Your task to perform on an android device: Search for usb-a on walmart.com, select the first entry, add it to the cart, then select checkout. Image 0: 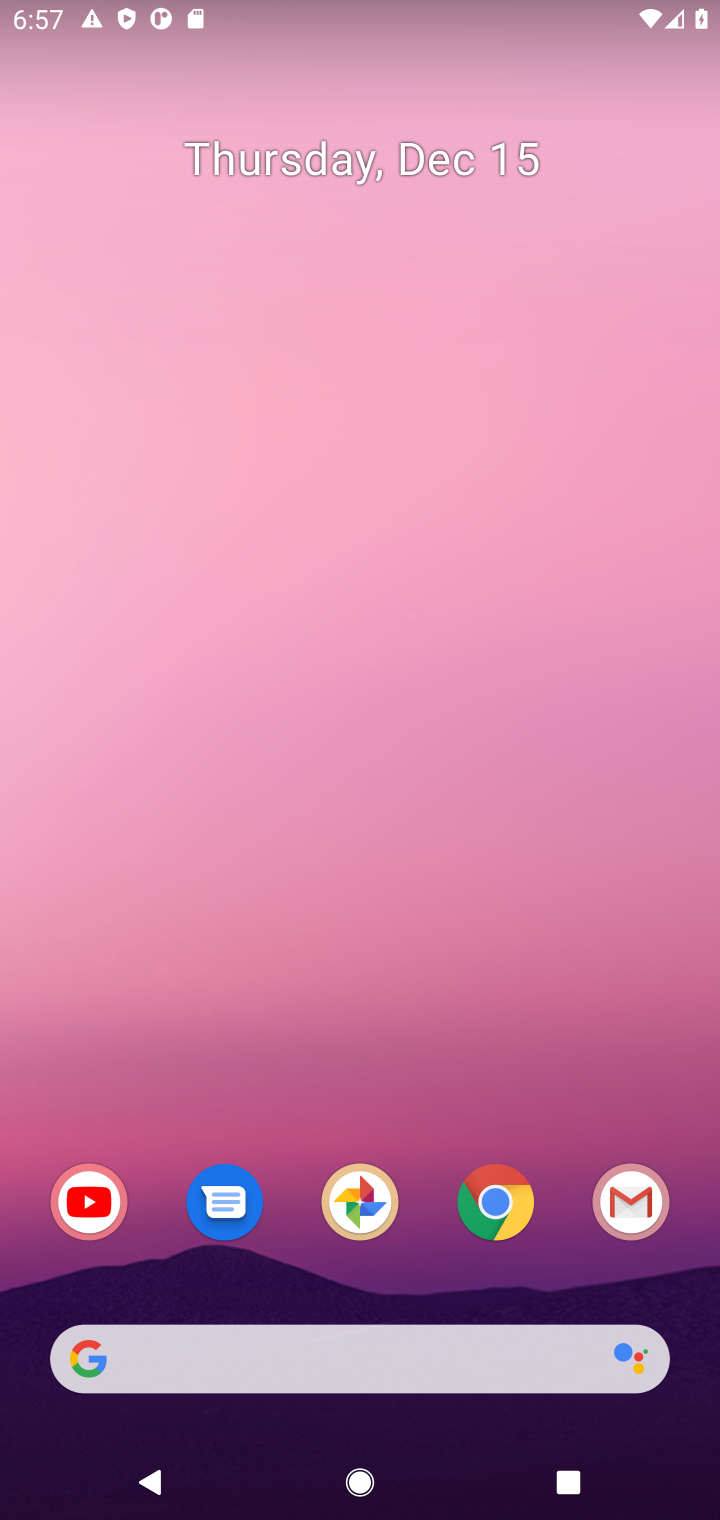
Step 0: click (498, 1216)
Your task to perform on an android device: Search for usb-a on walmart.com, select the first entry, add it to the cart, then select checkout. Image 1: 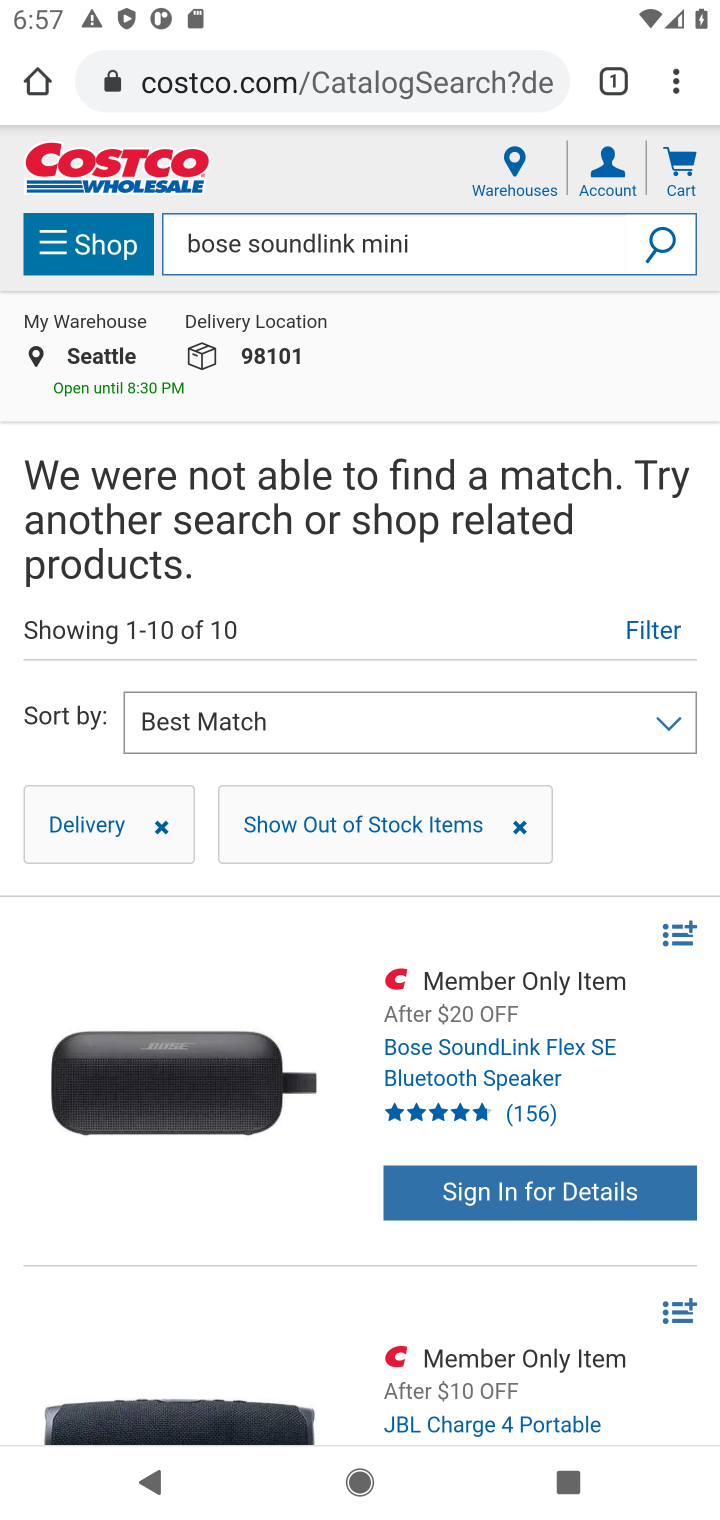
Step 1: click (323, 90)
Your task to perform on an android device: Search for usb-a on walmart.com, select the first entry, add it to the cart, then select checkout. Image 2: 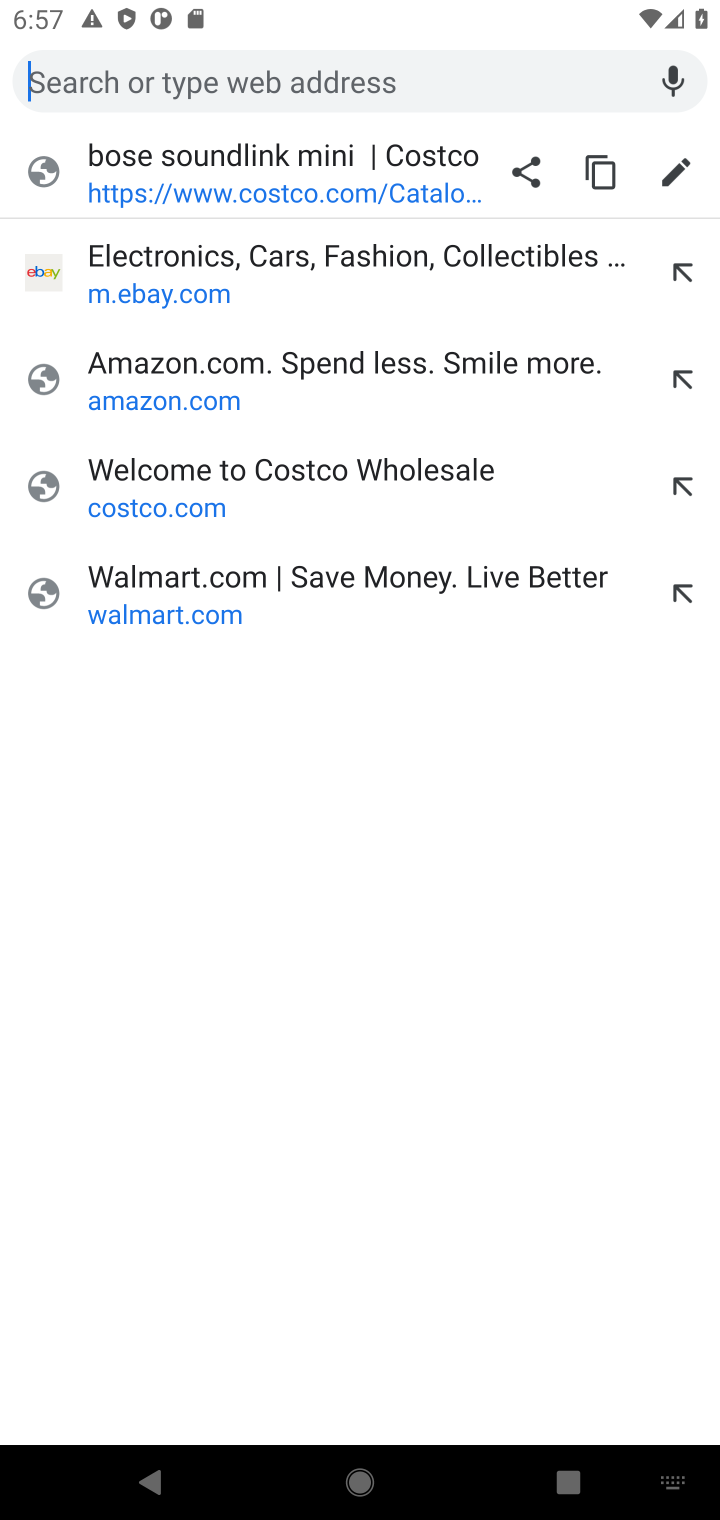
Step 2: click (133, 604)
Your task to perform on an android device: Search for usb-a on walmart.com, select the first entry, add it to the cart, then select checkout. Image 3: 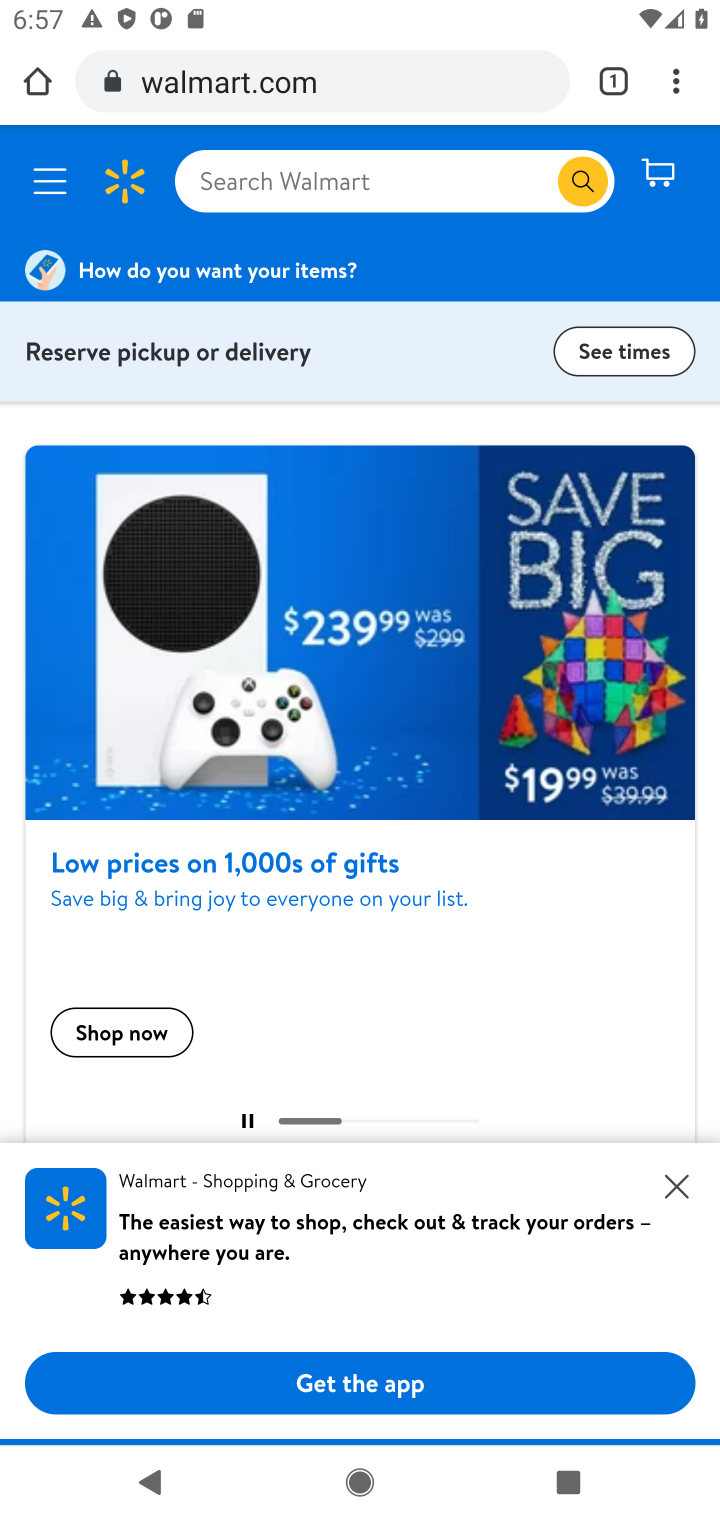
Step 3: click (278, 210)
Your task to perform on an android device: Search for usb-a on walmart.com, select the first entry, add it to the cart, then select checkout. Image 4: 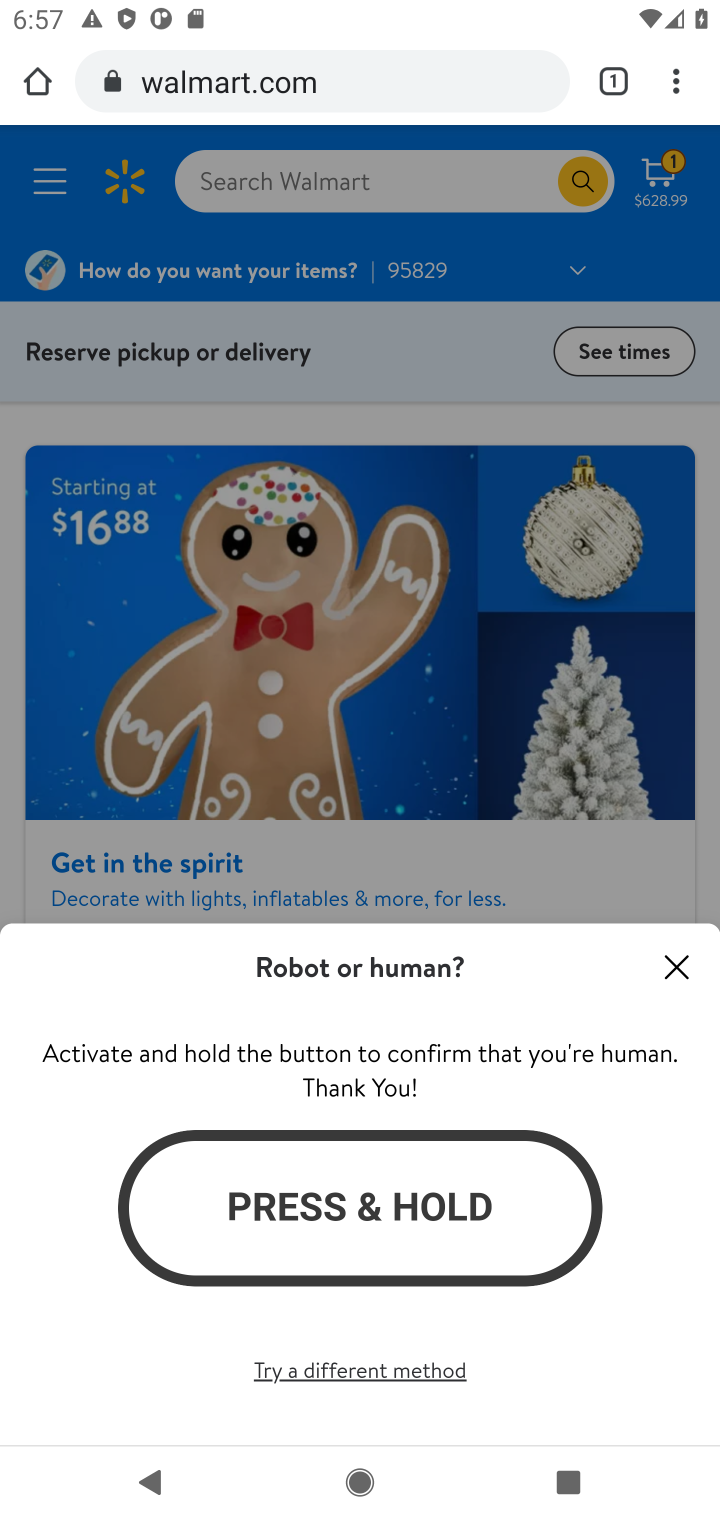
Step 4: click (387, 1380)
Your task to perform on an android device: Search for usb-a on walmart.com, select the first entry, add it to the cart, then select checkout. Image 5: 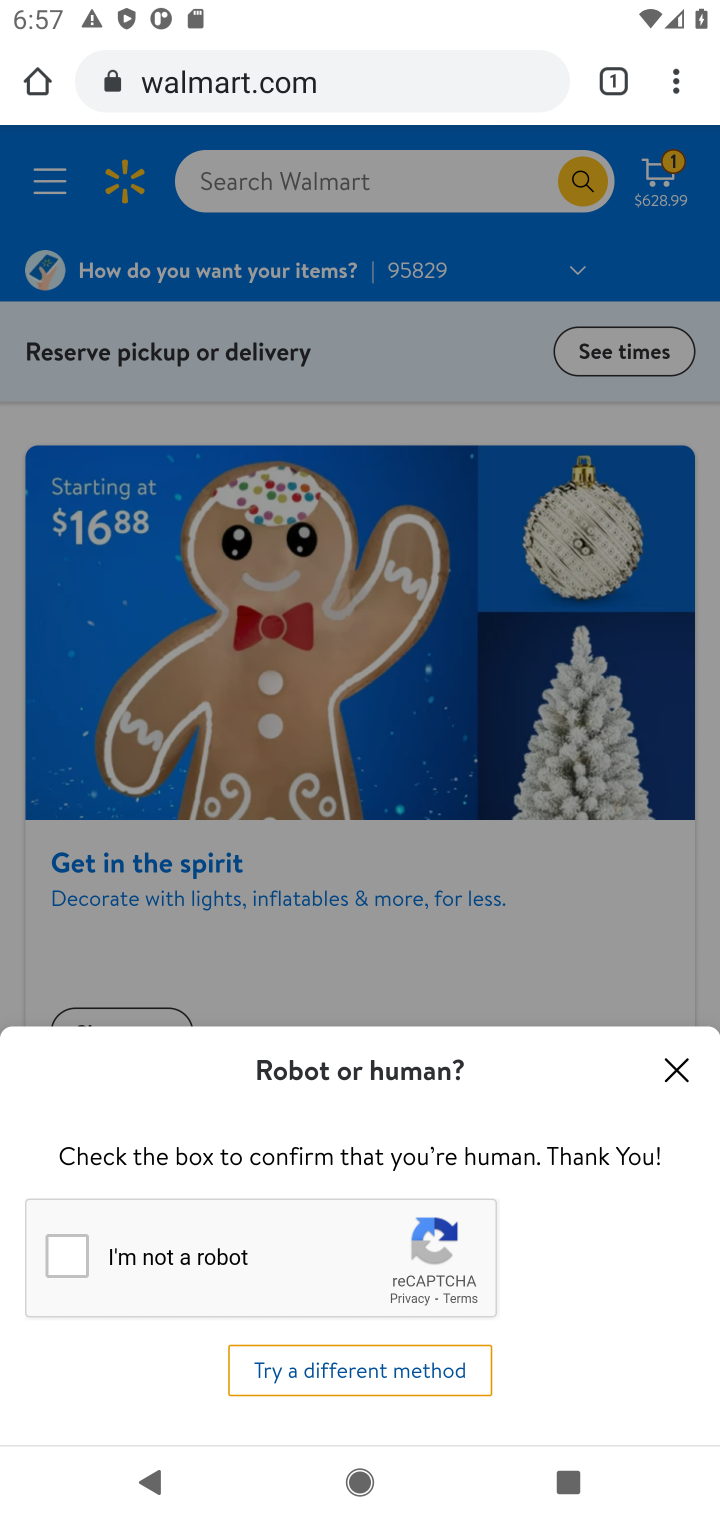
Step 5: click (54, 1249)
Your task to perform on an android device: Search for usb-a on walmart.com, select the first entry, add it to the cart, then select checkout. Image 6: 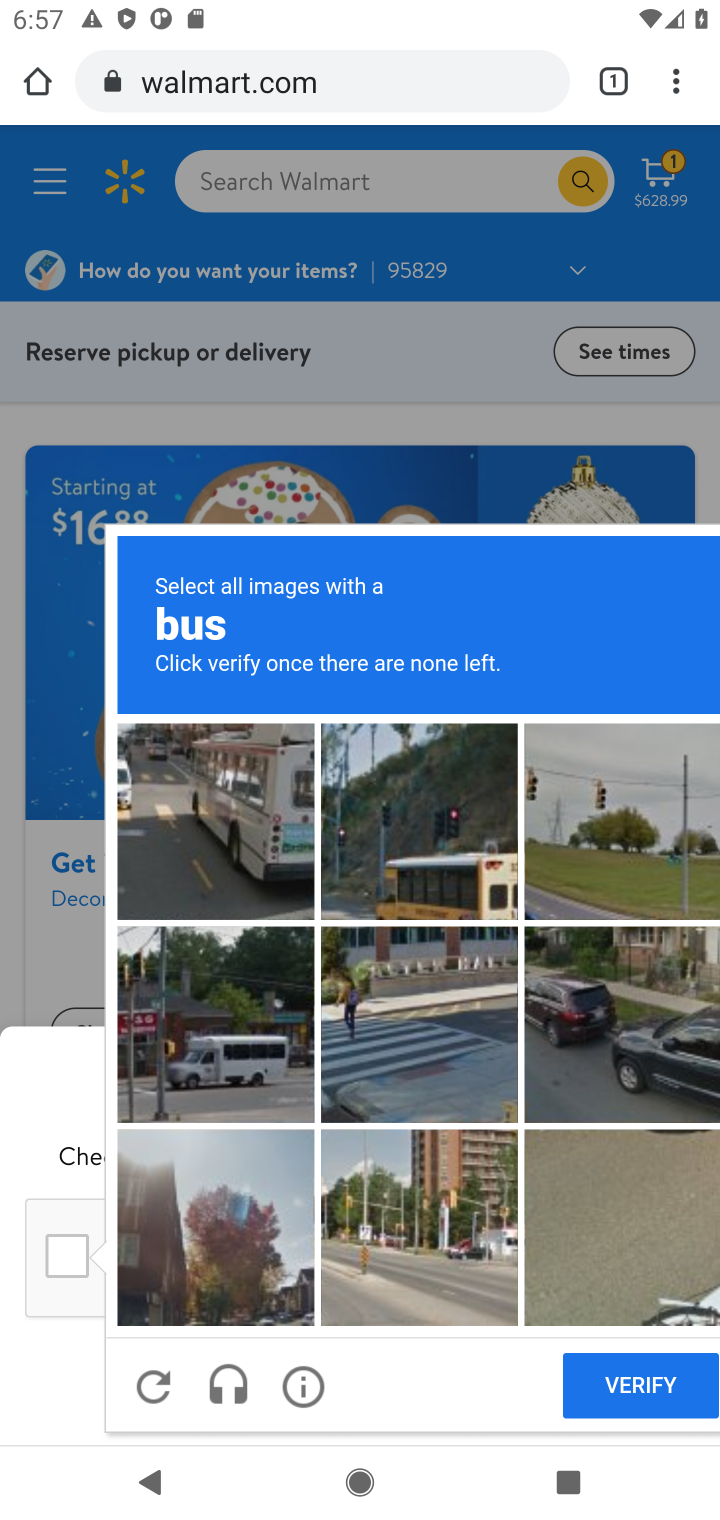
Step 6: drag from (208, 839) to (368, 876)
Your task to perform on an android device: Search for usb-a on walmart.com, select the first entry, add it to the cart, then select checkout. Image 7: 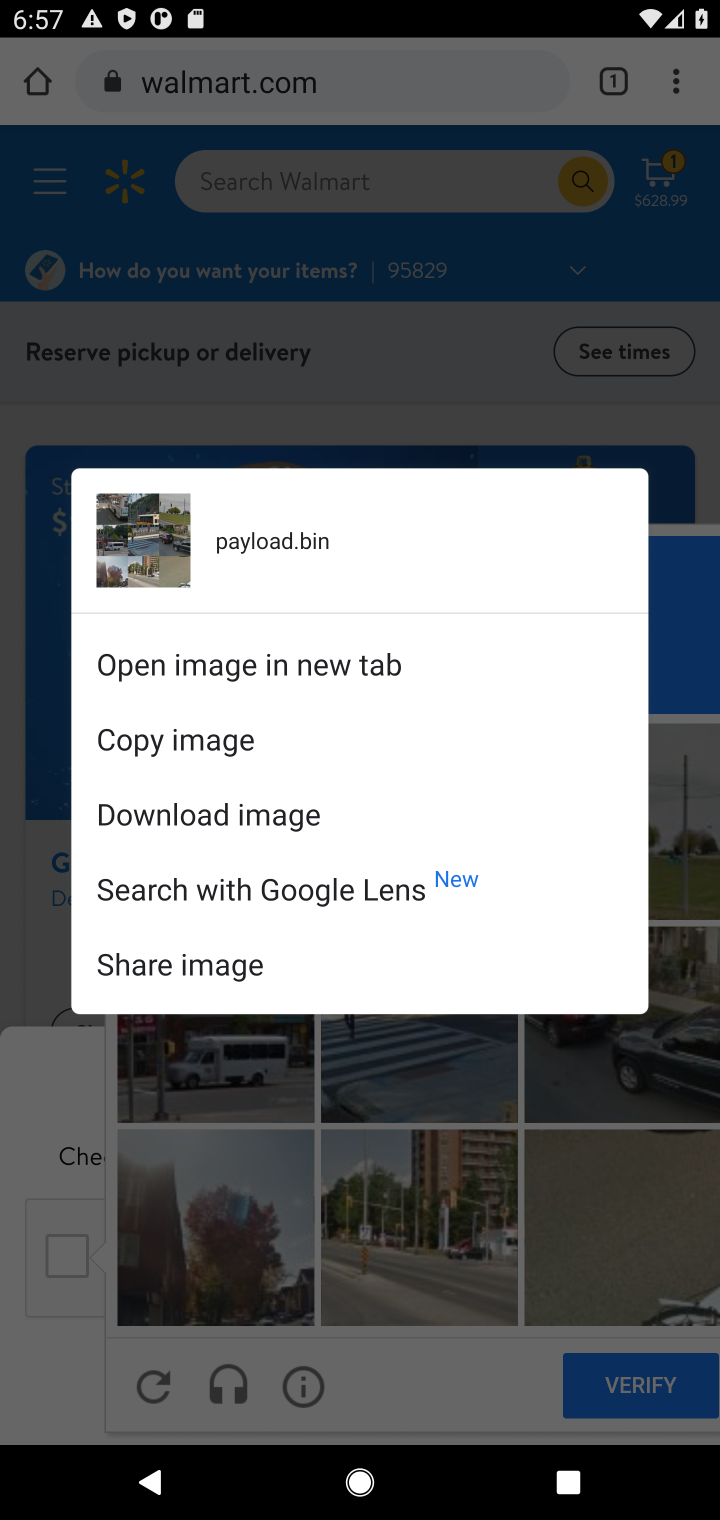
Step 7: click (255, 1061)
Your task to perform on an android device: Search for usb-a on walmart.com, select the first entry, add it to the cart, then select checkout. Image 8: 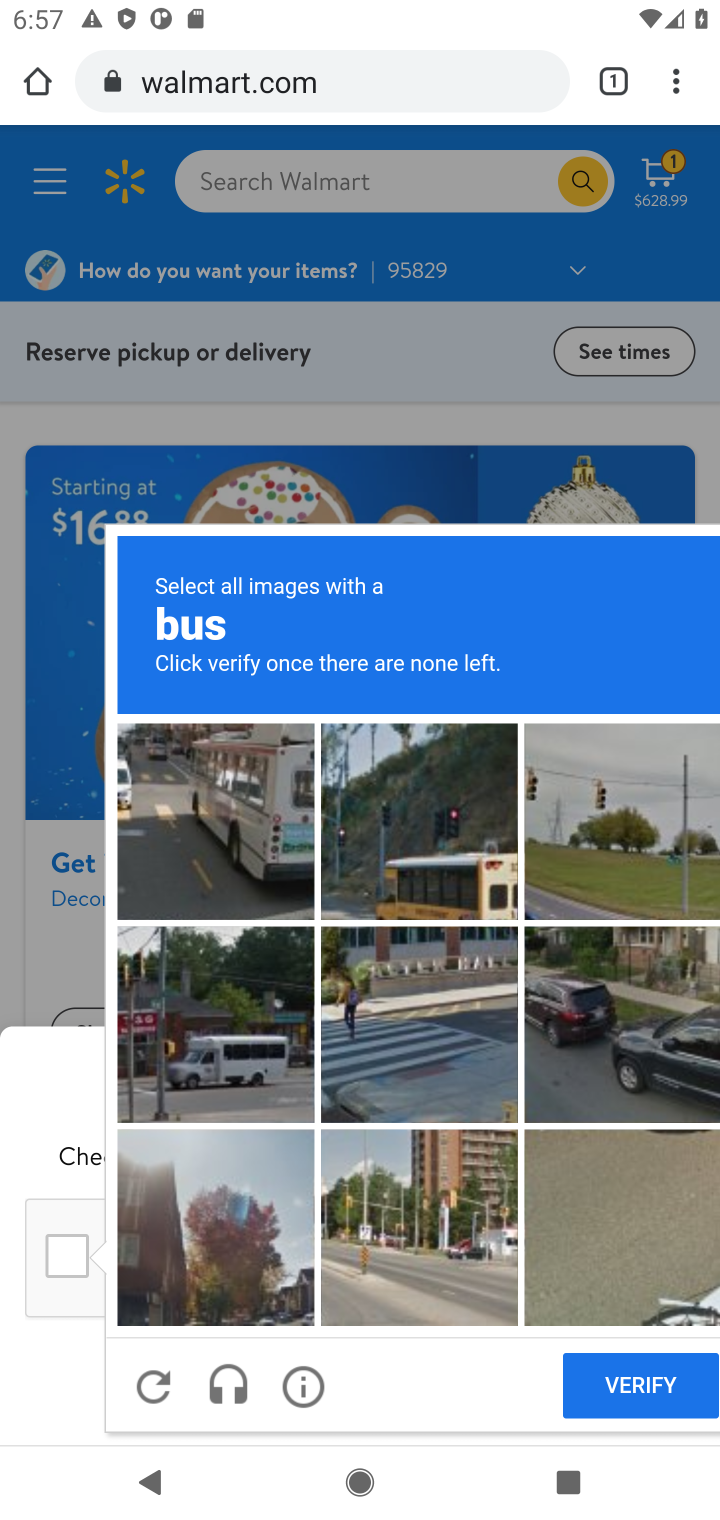
Step 8: click (234, 1057)
Your task to perform on an android device: Search for usb-a on walmart.com, select the first entry, add it to the cart, then select checkout. Image 9: 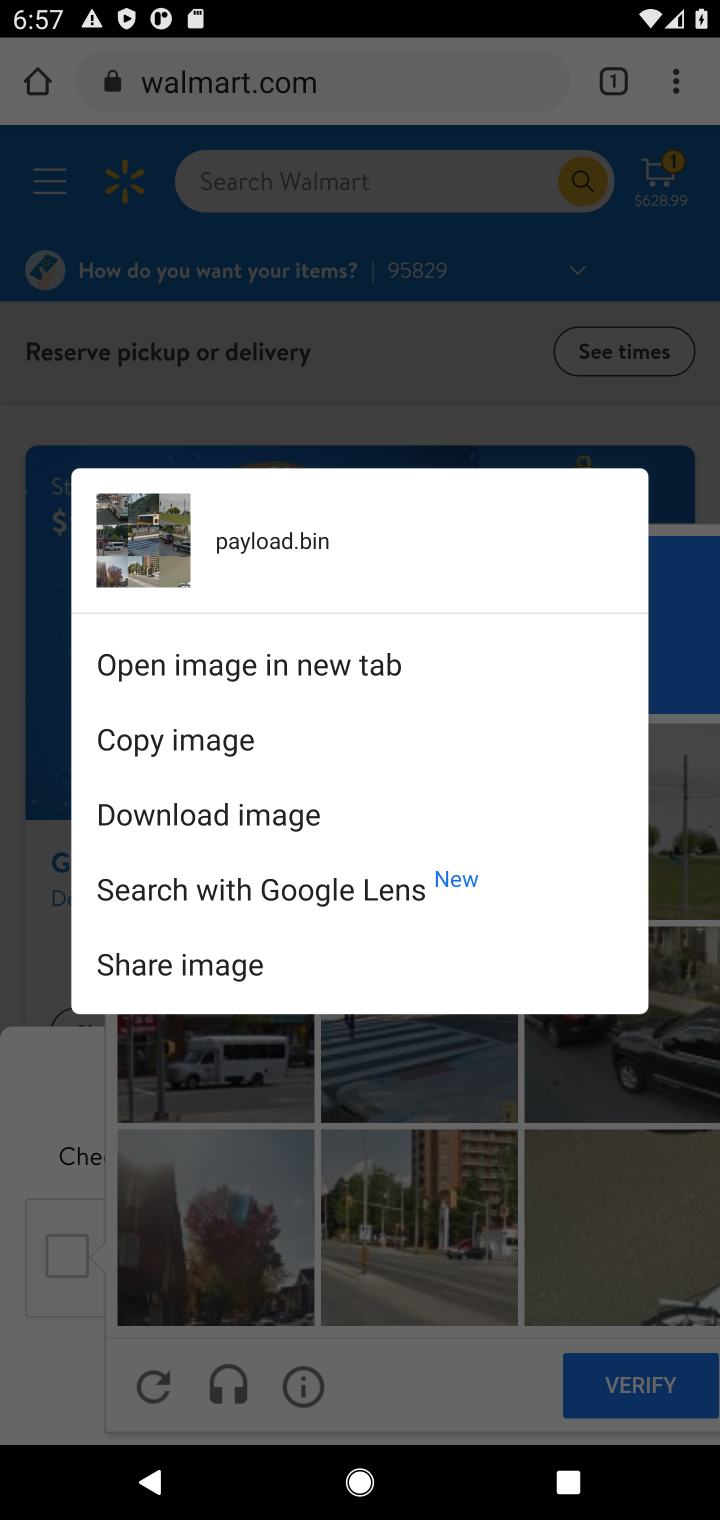
Step 9: click (240, 1068)
Your task to perform on an android device: Search for usb-a on walmart.com, select the first entry, add it to the cart, then select checkout. Image 10: 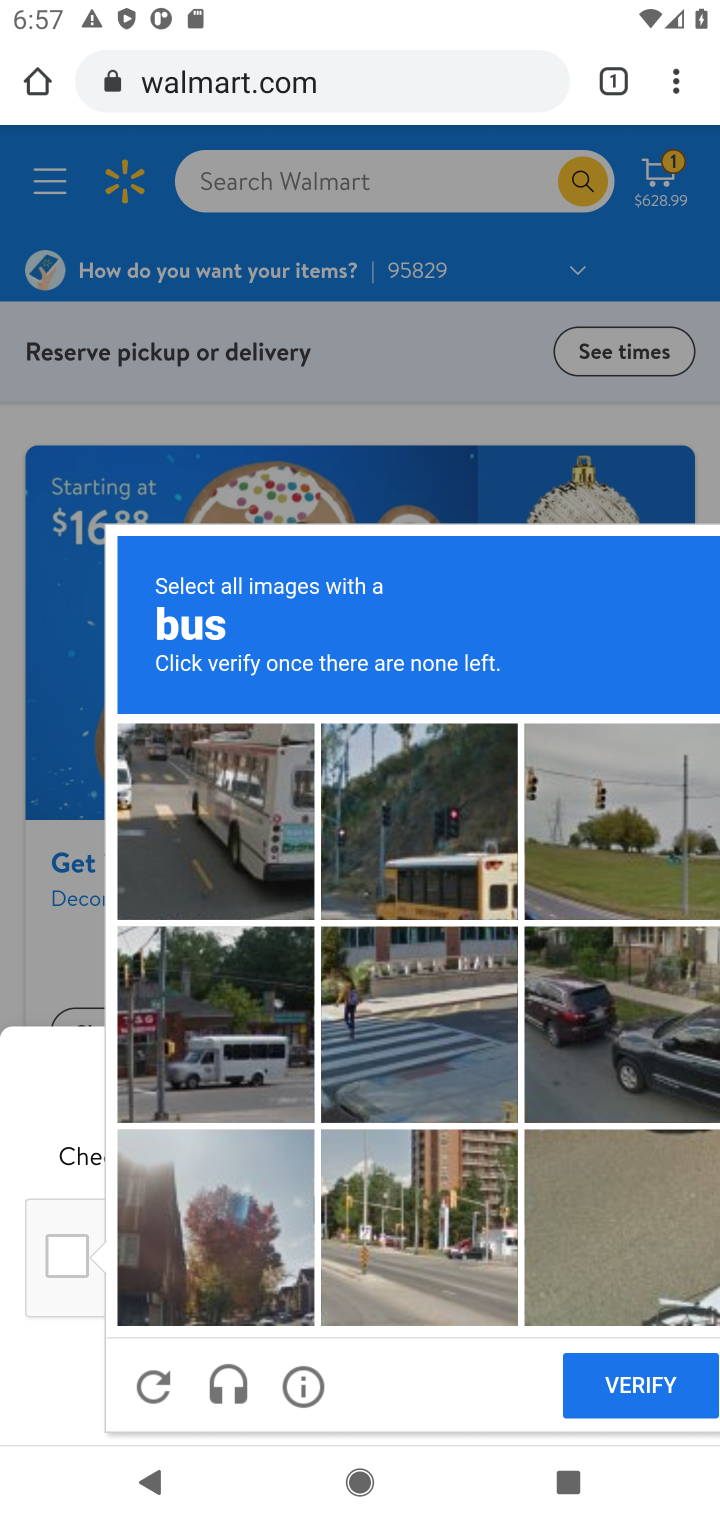
Step 10: click (263, 1057)
Your task to perform on an android device: Search for usb-a on walmart.com, select the first entry, add it to the cart, then select checkout. Image 11: 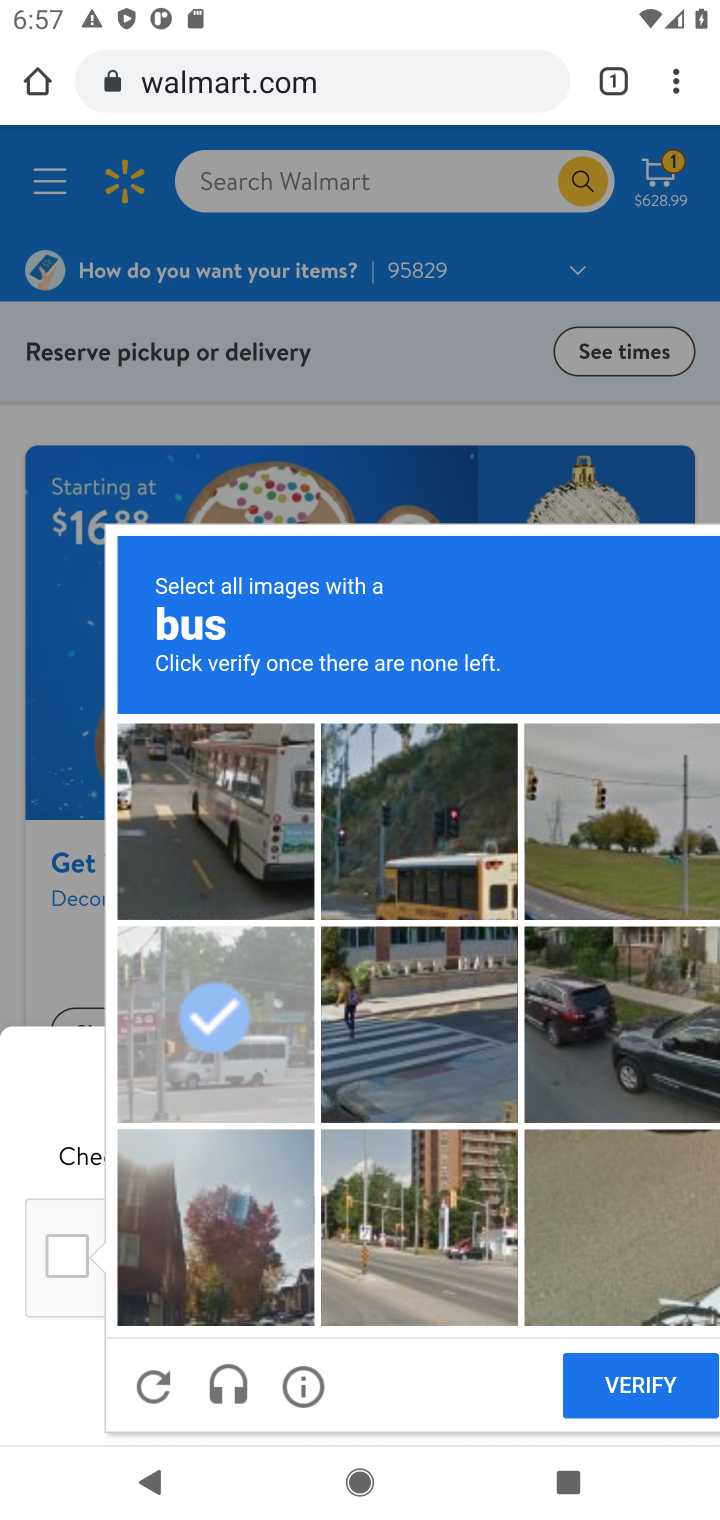
Step 11: click (235, 875)
Your task to perform on an android device: Search for usb-a on walmart.com, select the first entry, add it to the cart, then select checkout. Image 12: 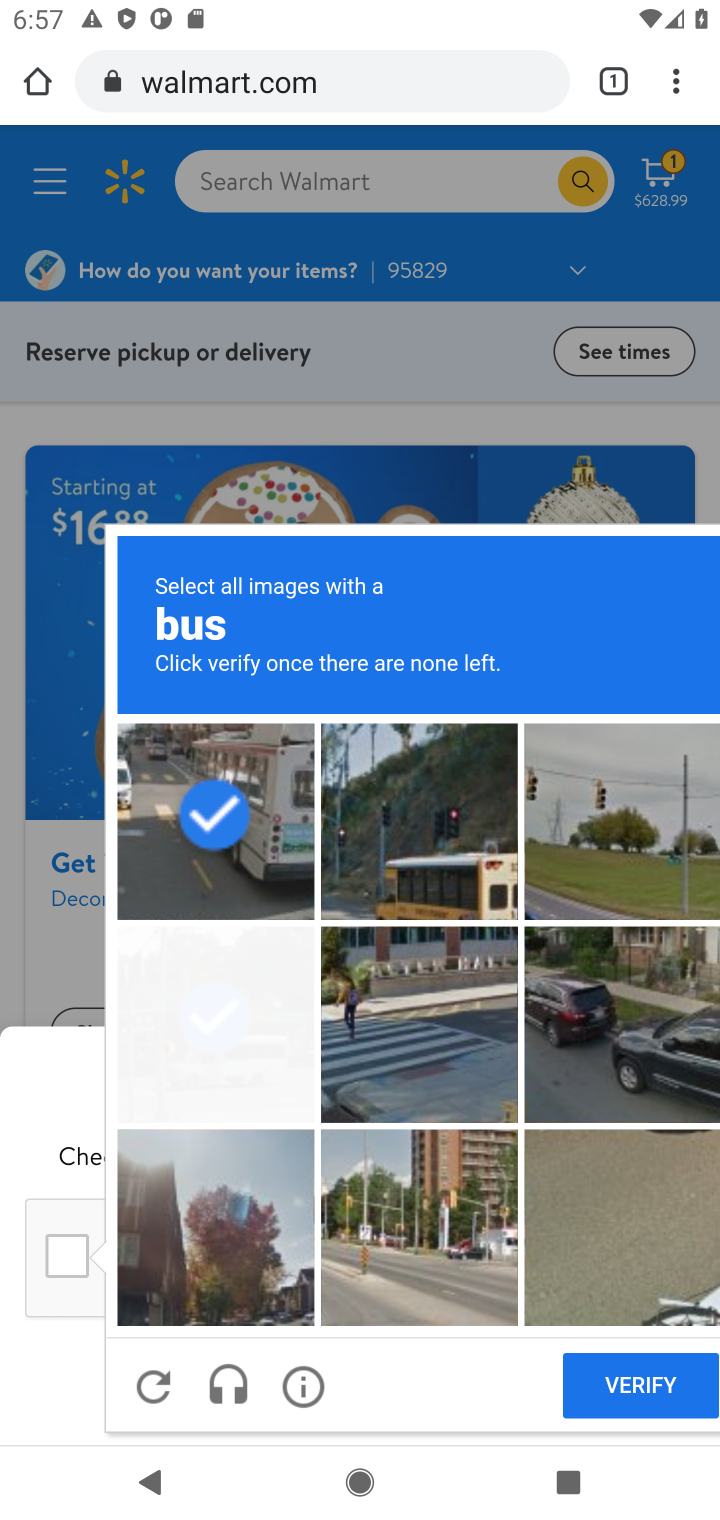
Step 12: click (410, 830)
Your task to perform on an android device: Search for usb-a on walmart.com, select the first entry, add it to the cart, then select checkout. Image 13: 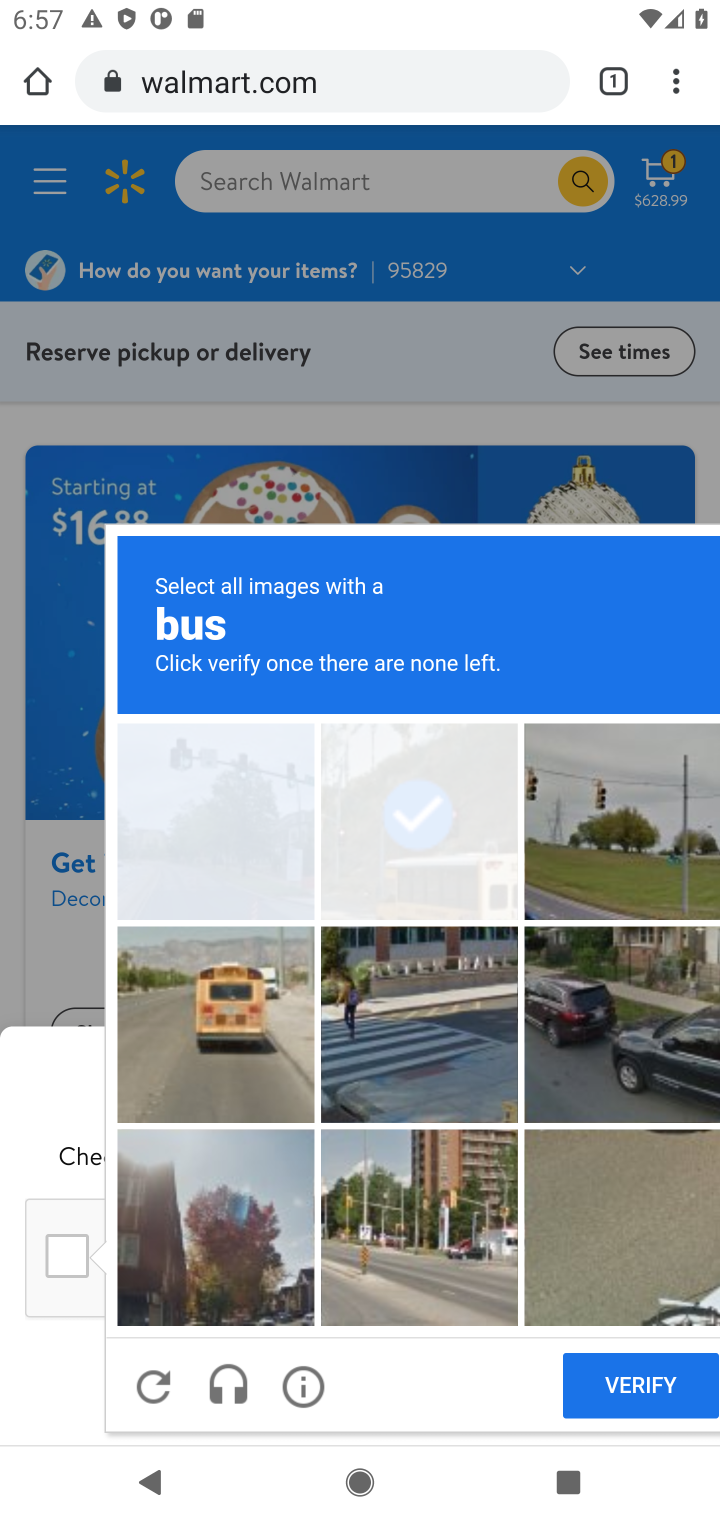
Step 13: click (256, 1011)
Your task to perform on an android device: Search for usb-a on walmart.com, select the first entry, add it to the cart, then select checkout. Image 14: 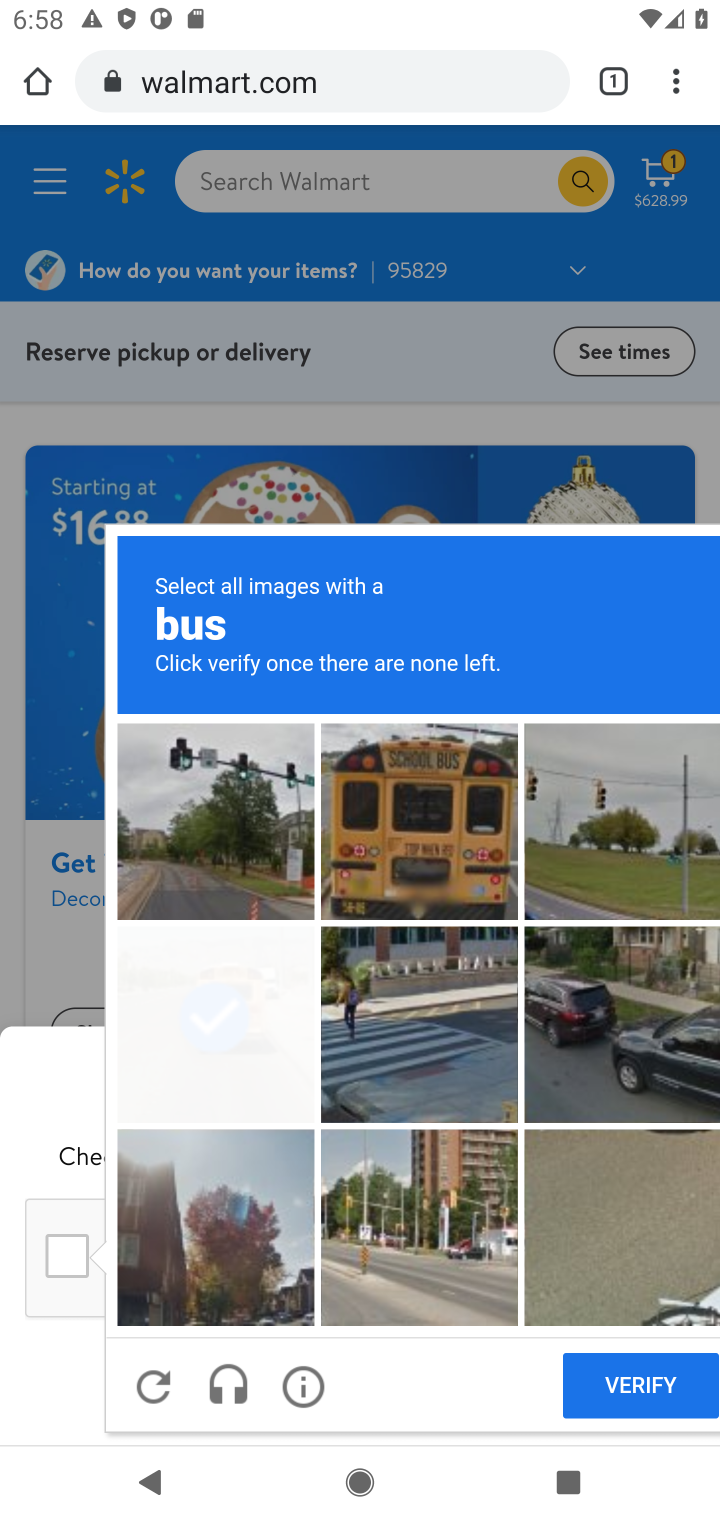
Step 14: click (354, 899)
Your task to perform on an android device: Search for usb-a on walmart.com, select the first entry, add it to the cart, then select checkout. Image 15: 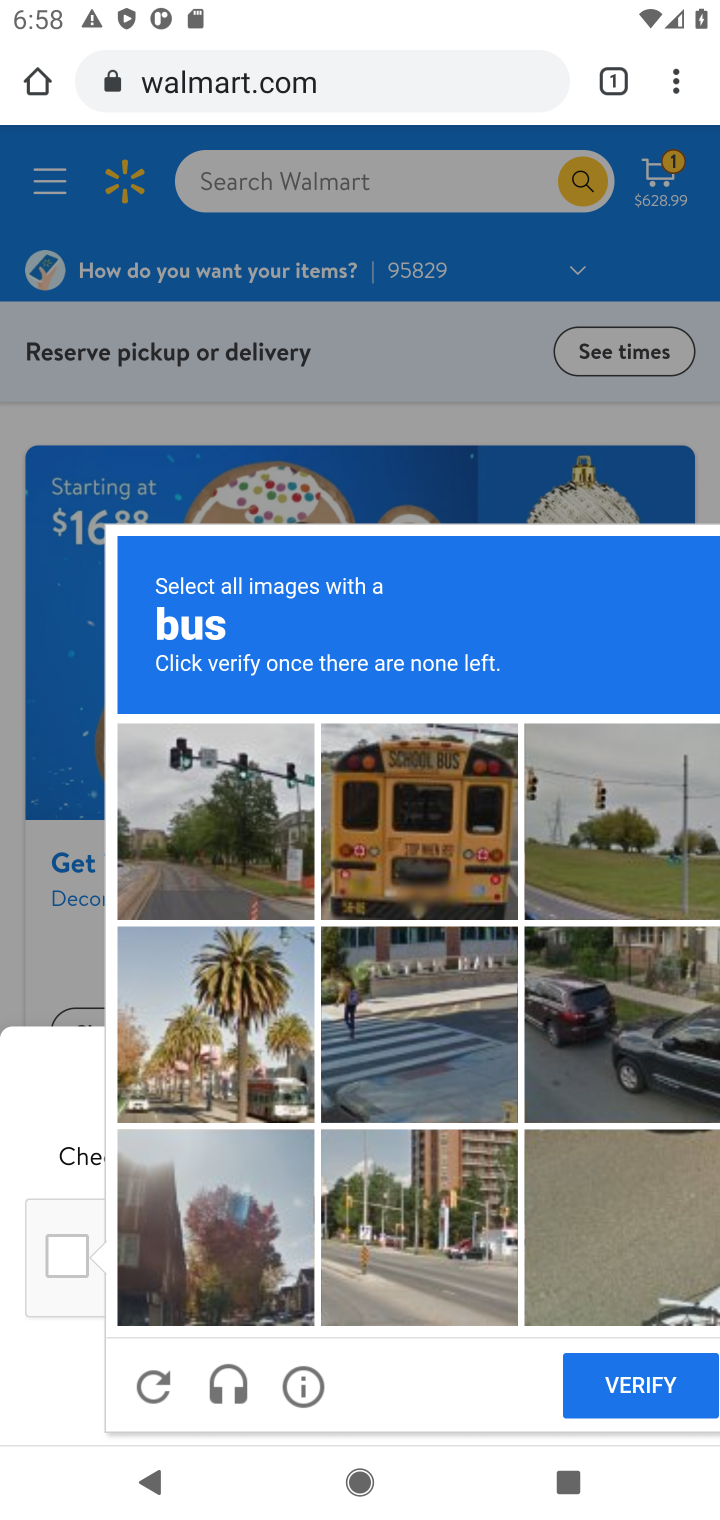
Step 15: click (384, 862)
Your task to perform on an android device: Search for usb-a on walmart.com, select the first entry, add it to the cart, then select checkout. Image 16: 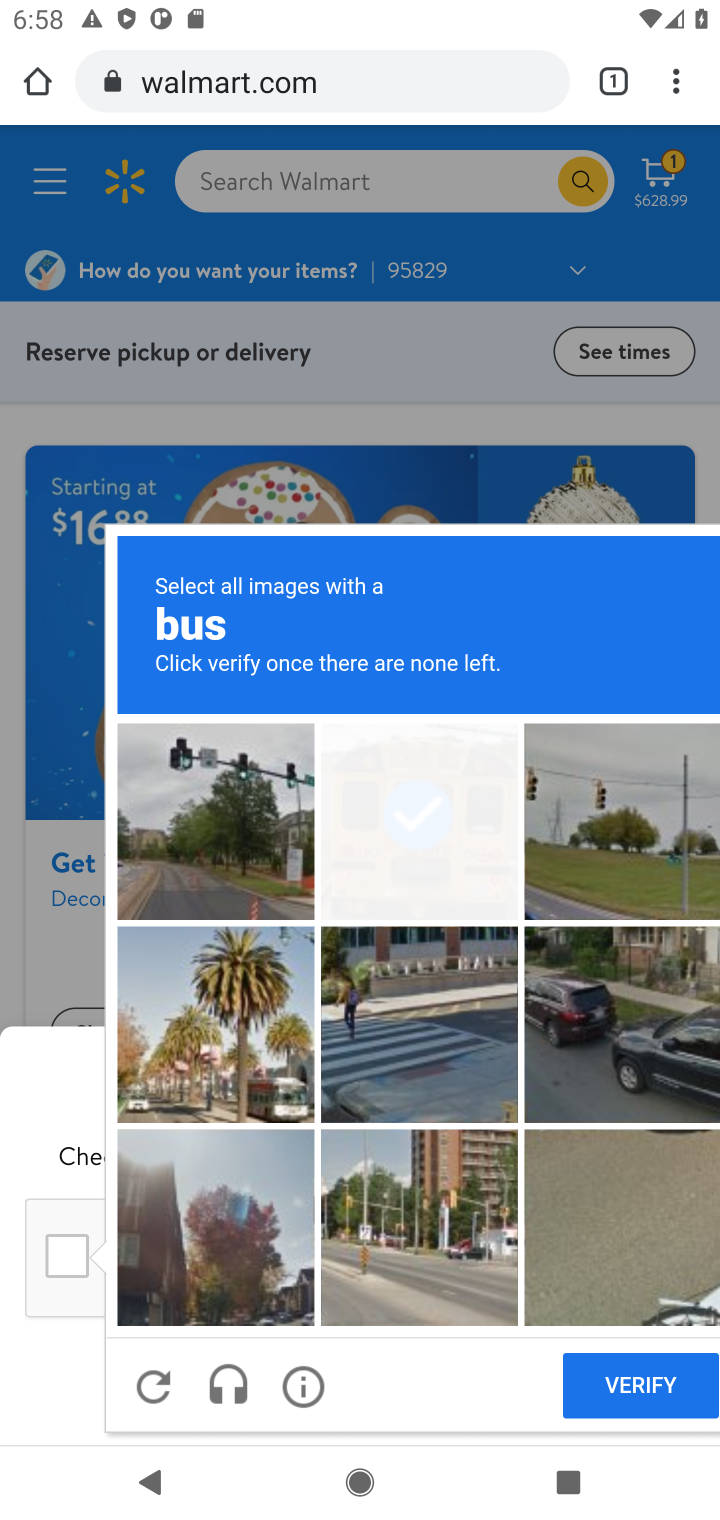
Step 16: click (232, 1035)
Your task to perform on an android device: Search for usb-a on walmart.com, select the first entry, add it to the cart, then select checkout. Image 17: 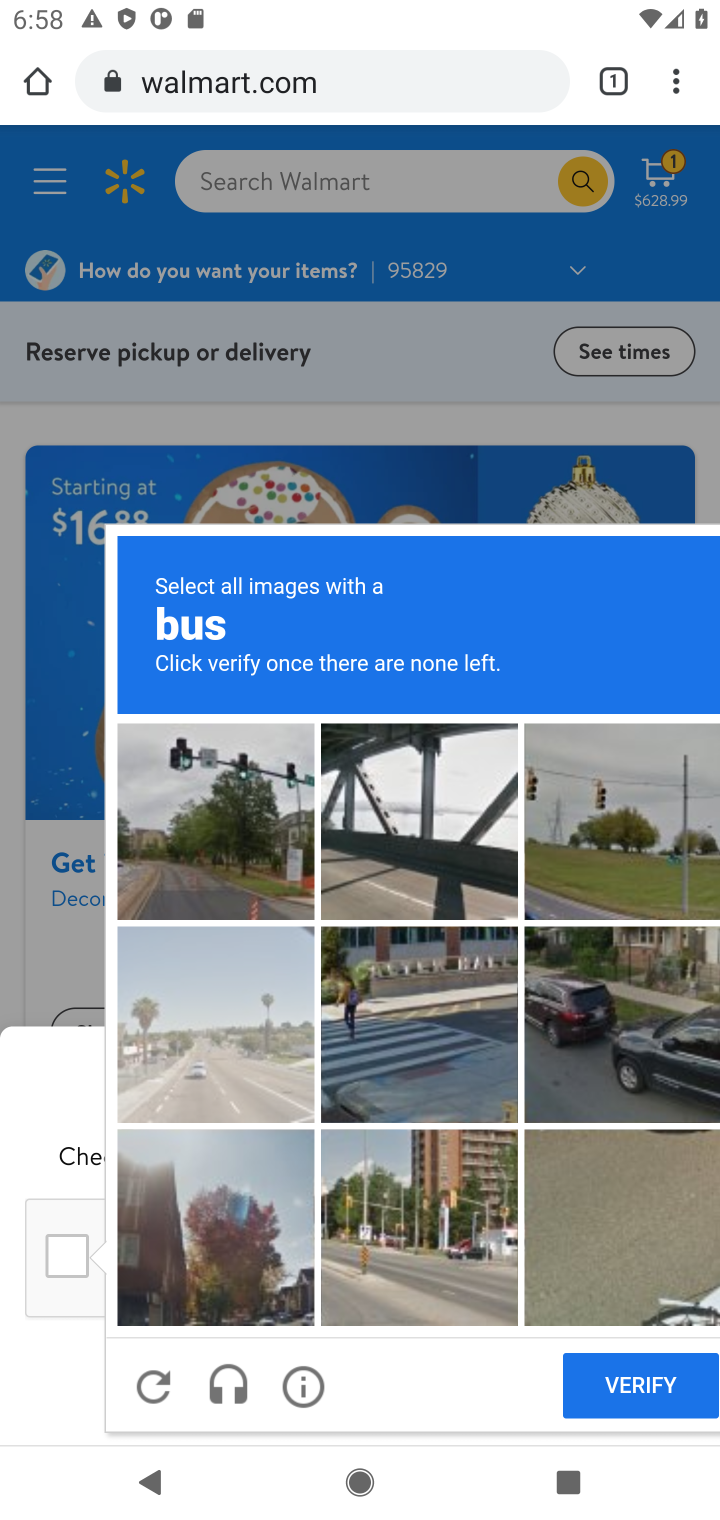
Step 17: click (404, 1268)
Your task to perform on an android device: Search for usb-a on walmart.com, select the first entry, add it to the cart, then select checkout. Image 18: 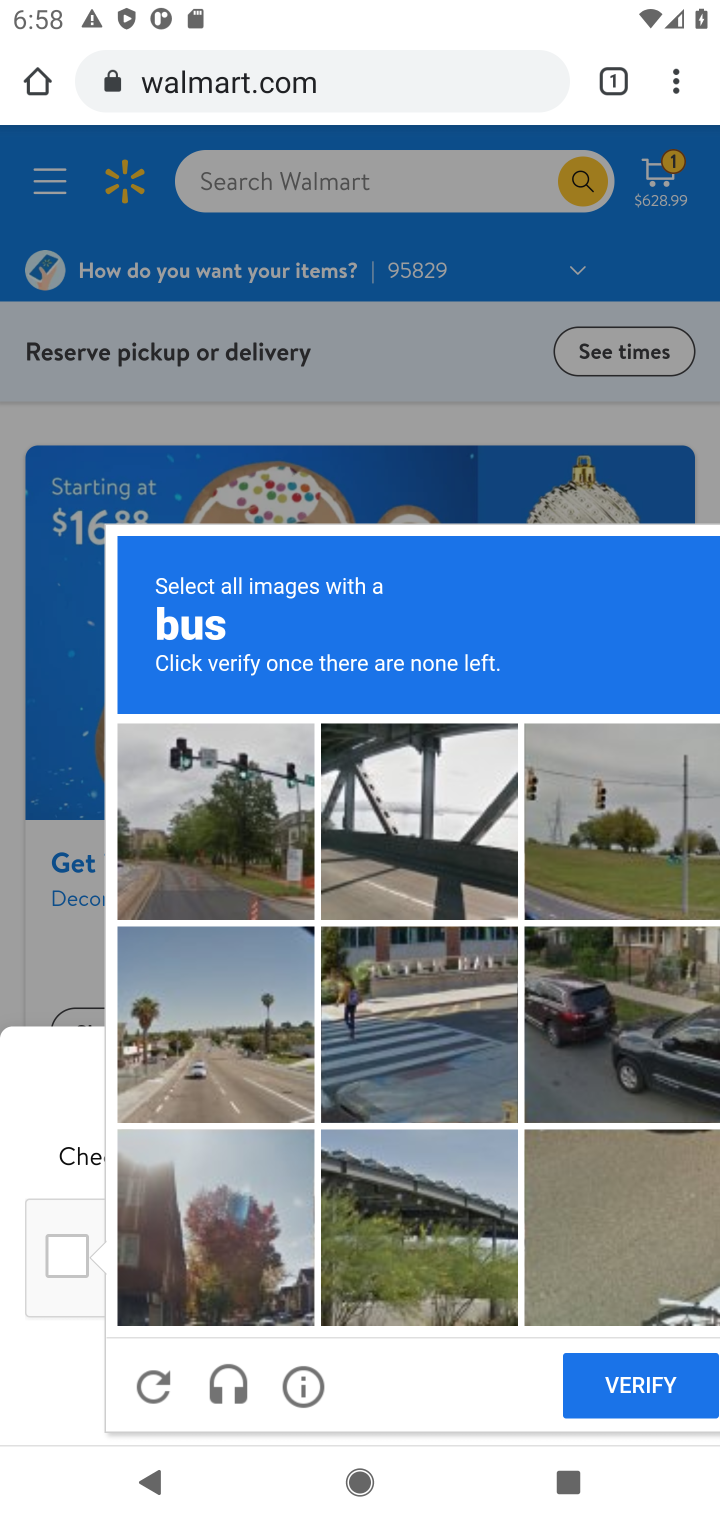
Step 18: click (624, 1390)
Your task to perform on an android device: Search for usb-a on walmart.com, select the first entry, add it to the cart, then select checkout. Image 19: 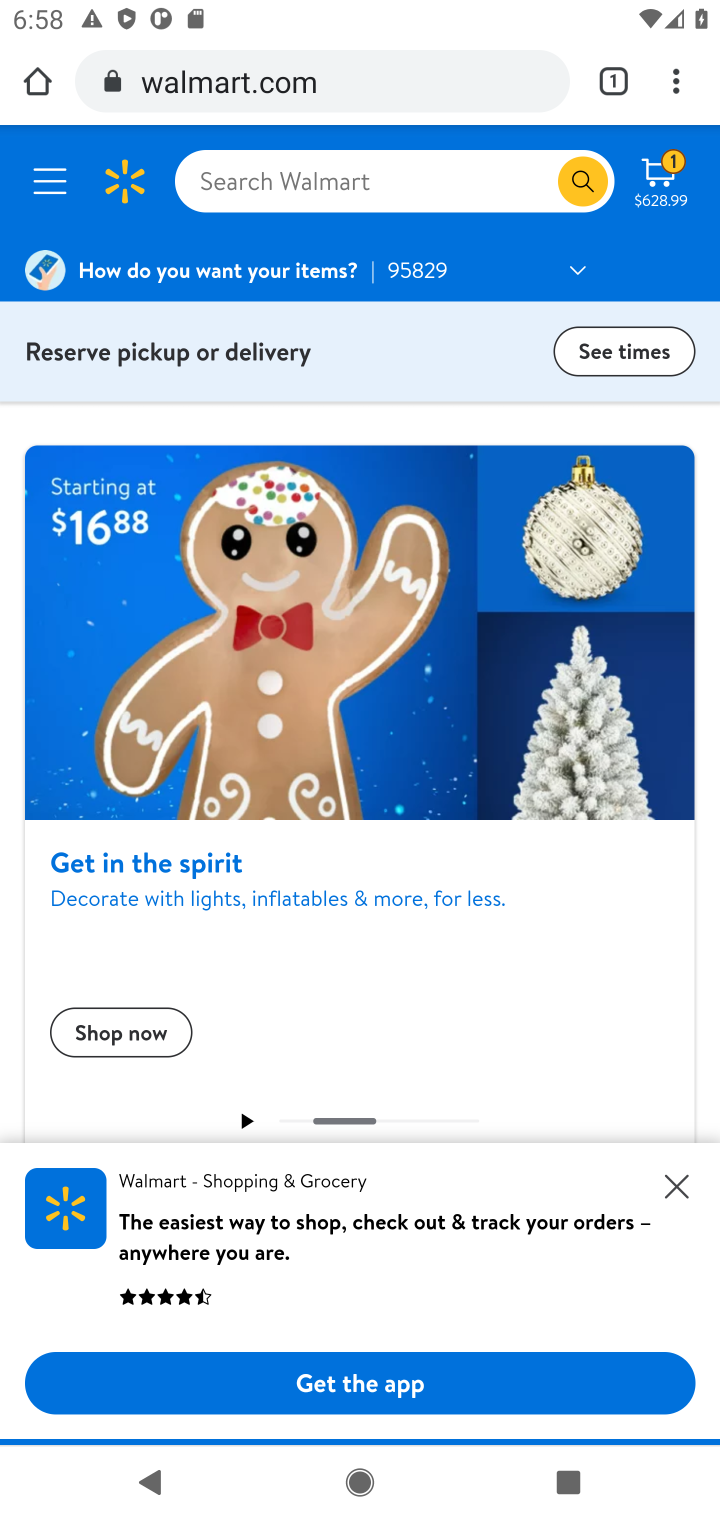
Step 19: click (269, 183)
Your task to perform on an android device: Search for usb-a on walmart.com, select the first entry, add it to the cart, then select checkout. Image 20: 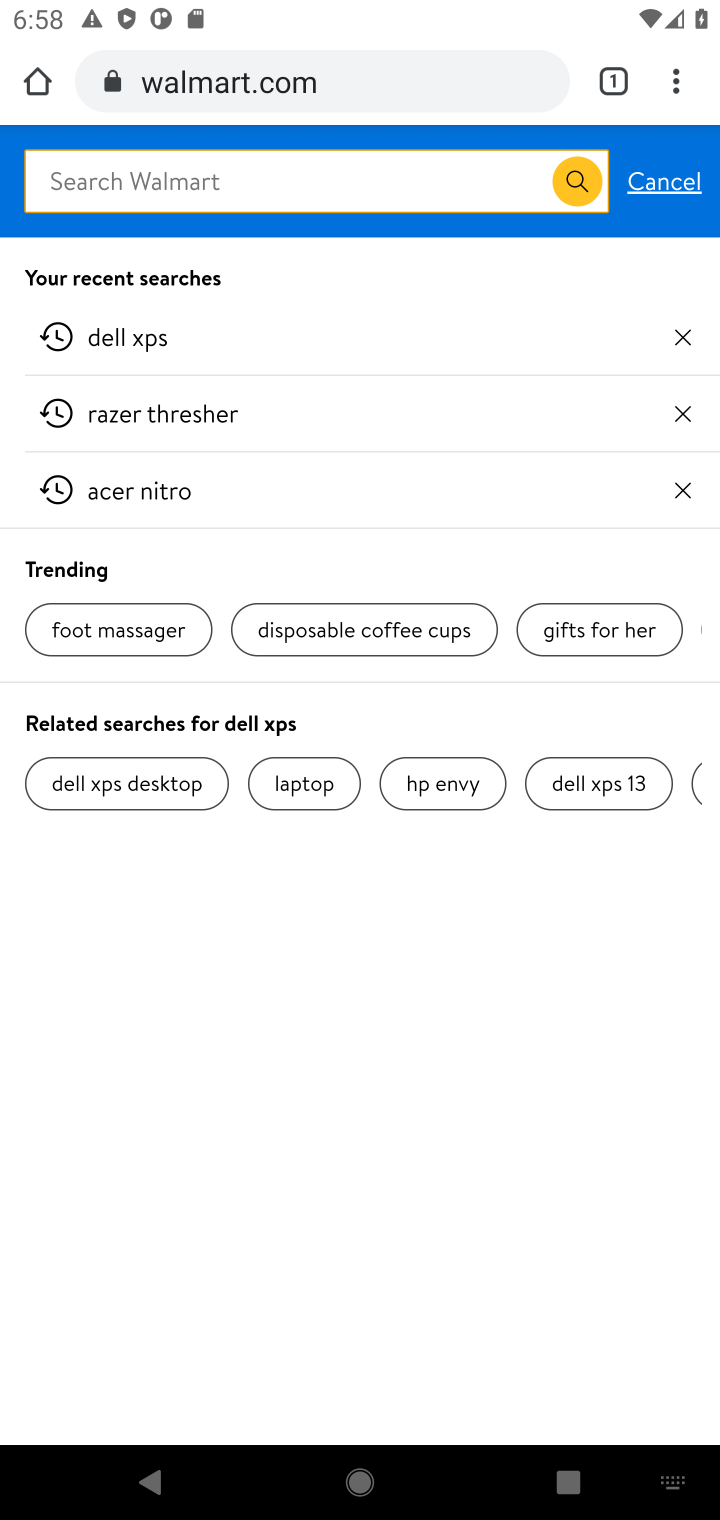
Step 20: type "usb-a"
Your task to perform on an android device: Search for usb-a on walmart.com, select the first entry, add it to the cart, then select checkout. Image 21: 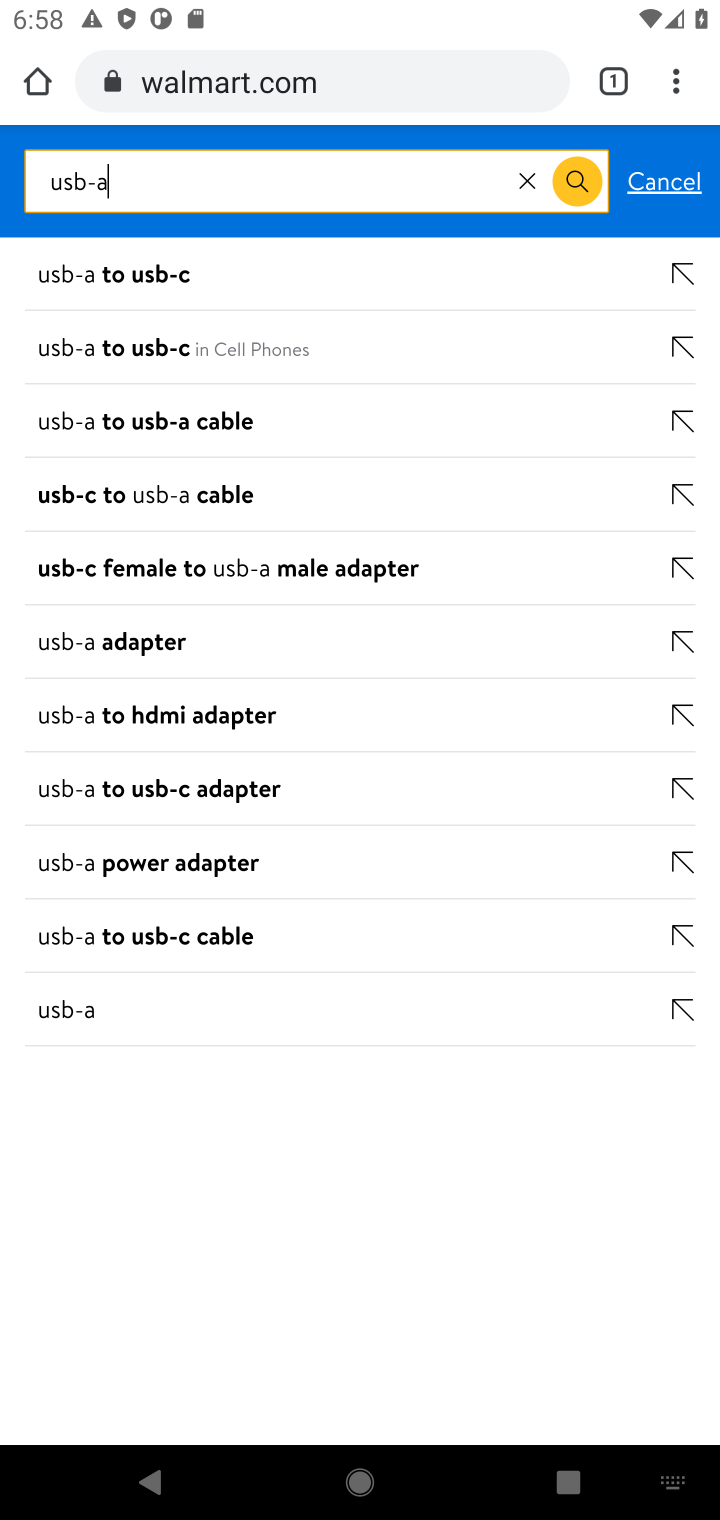
Step 21: click (71, 1012)
Your task to perform on an android device: Search for usb-a on walmart.com, select the first entry, add it to the cart, then select checkout. Image 22: 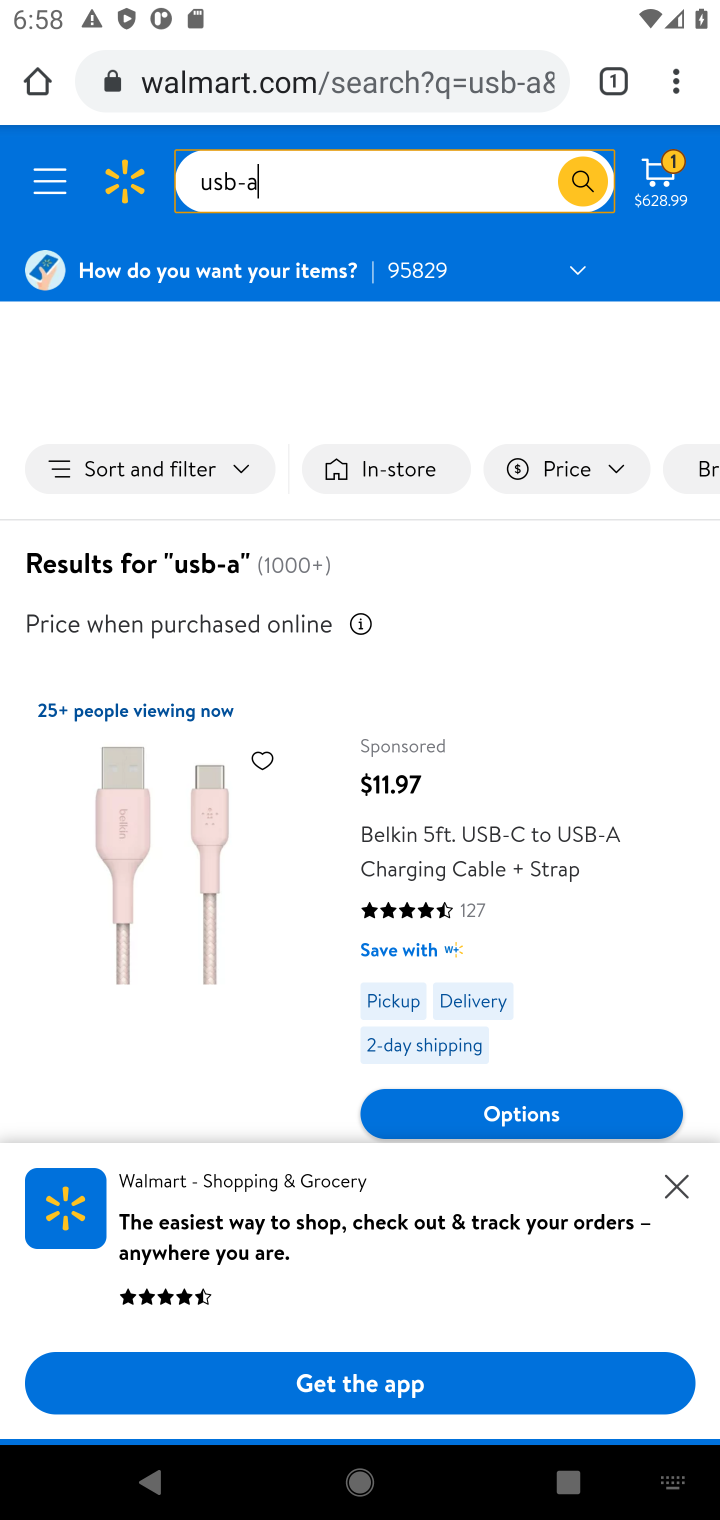
Step 22: click (662, 1182)
Your task to perform on an android device: Search for usb-a on walmart.com, select the first entry, add it to the cart, then select checkout. Image 23: 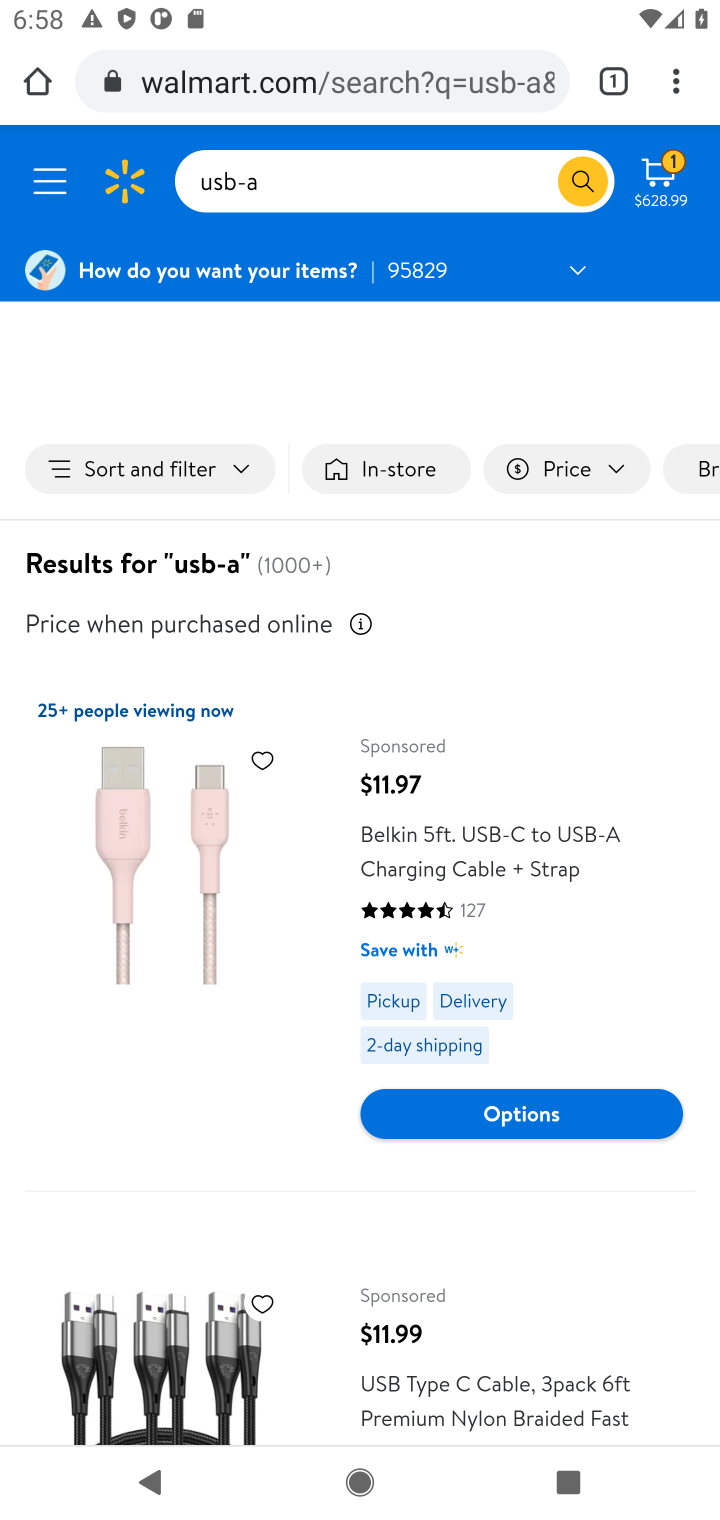
Step 23: click (476, 895)
Your task to perform on an android device: Search for usb-a on walmart.com, select the first entry, add it to the cart, then select checkout. Image 24: 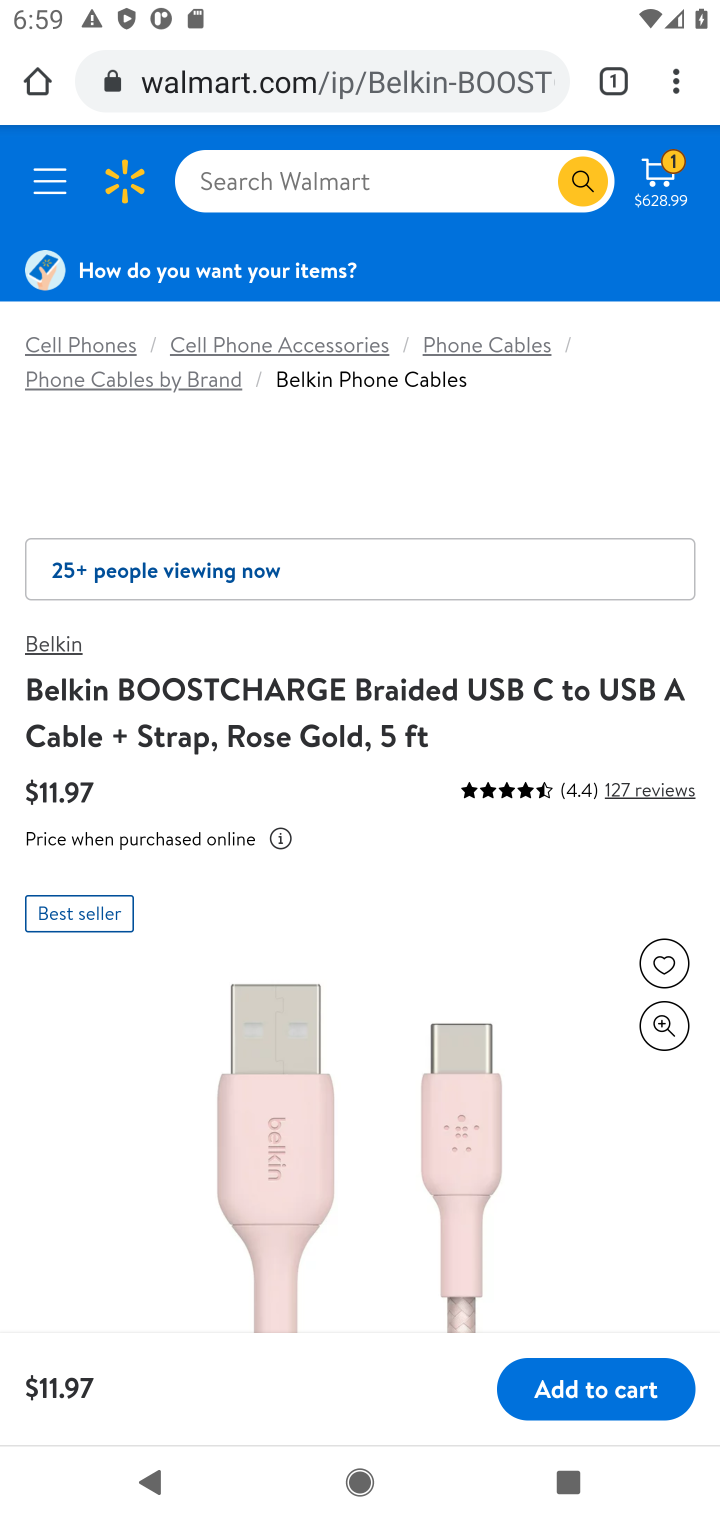
Step 24: click (593, 1409)
Your task to perform on an android device: Search for usb-a on walmart.com, select the first entry, add it to the cart, then select checkout. Image 25: 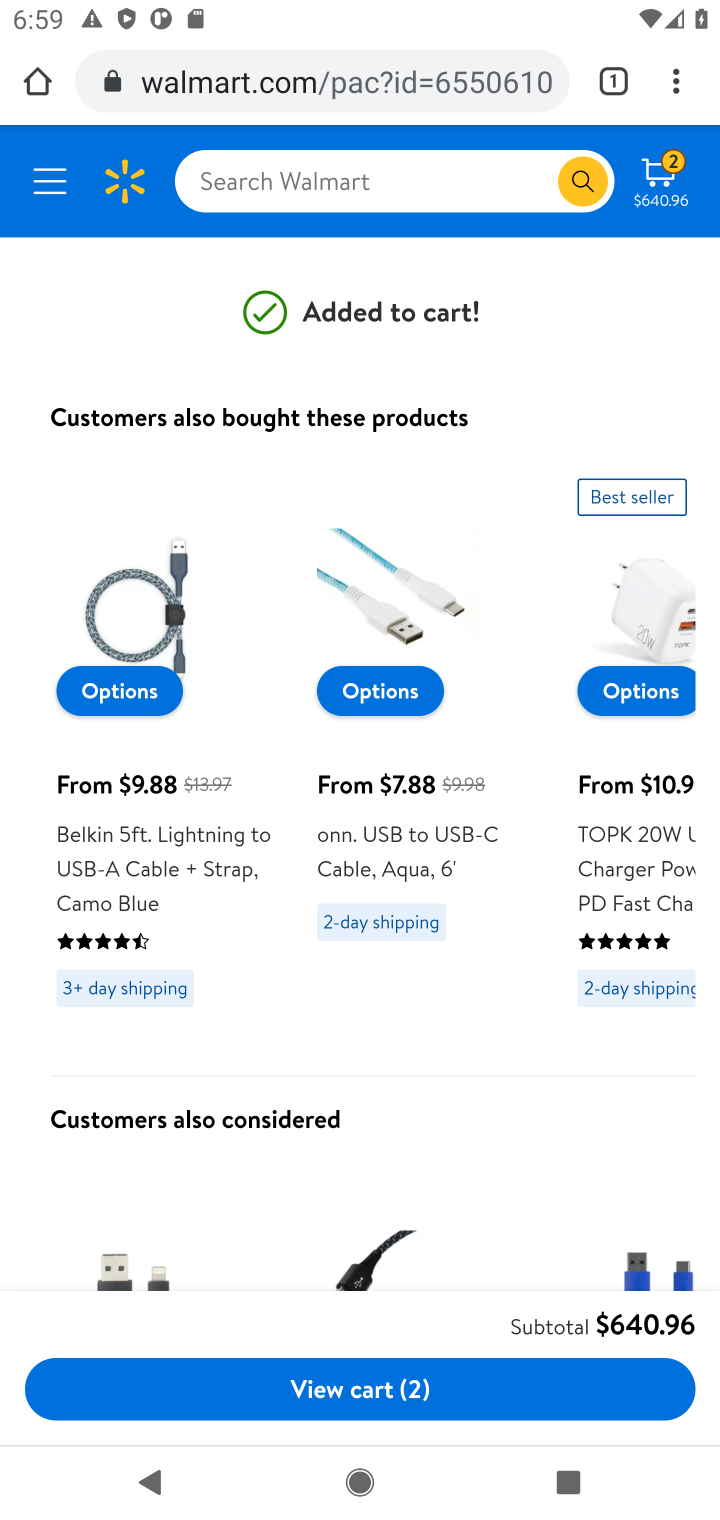
Step 25: click (331, 1386)
Your task to perform on an android device: Search for usb-a on walmart.com, select the first entry, add it to the cart, then select checkout. Image 26: 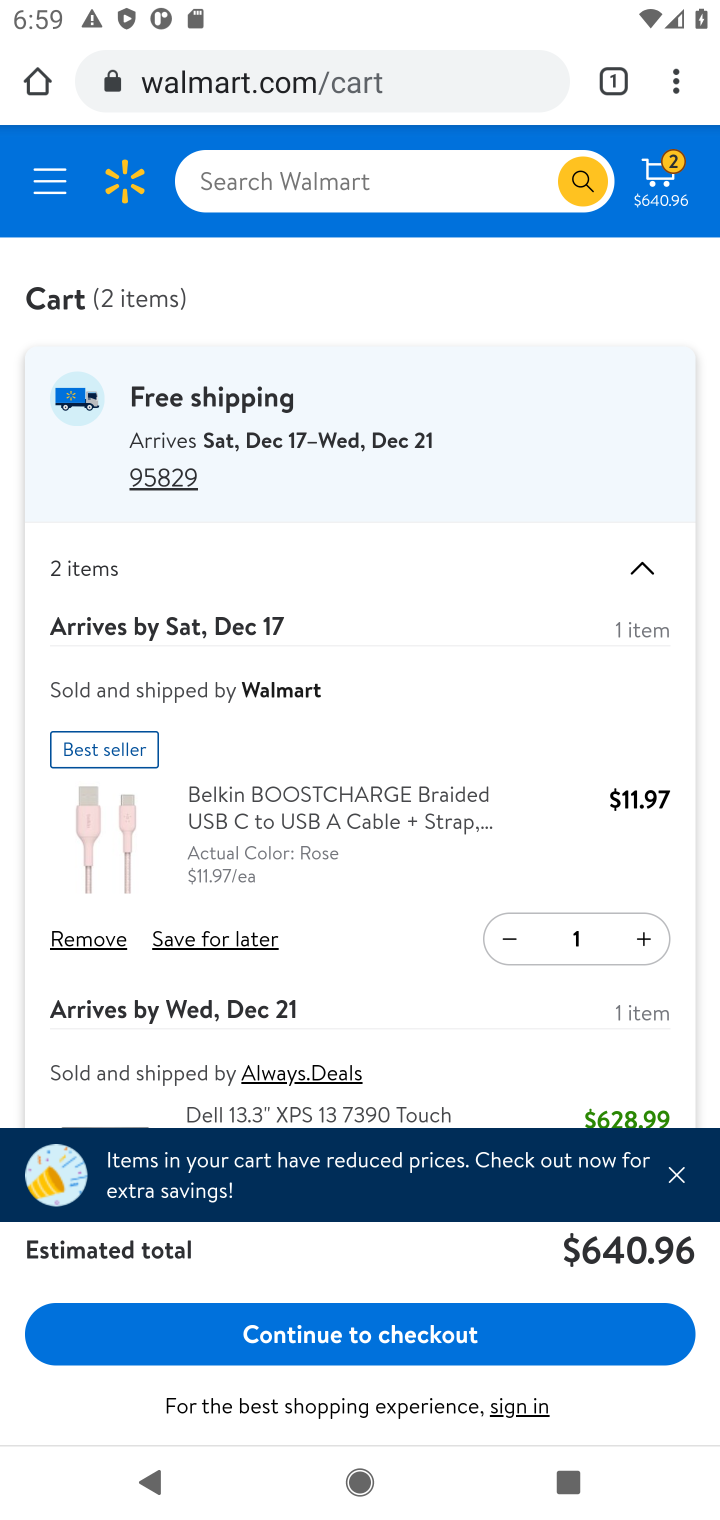
Step 26: click (341, 1345)
Your task to perform on an android device: Search for usb-a on walmart.com, select the first entry, add it to the cart, then select checkout. Image 27: 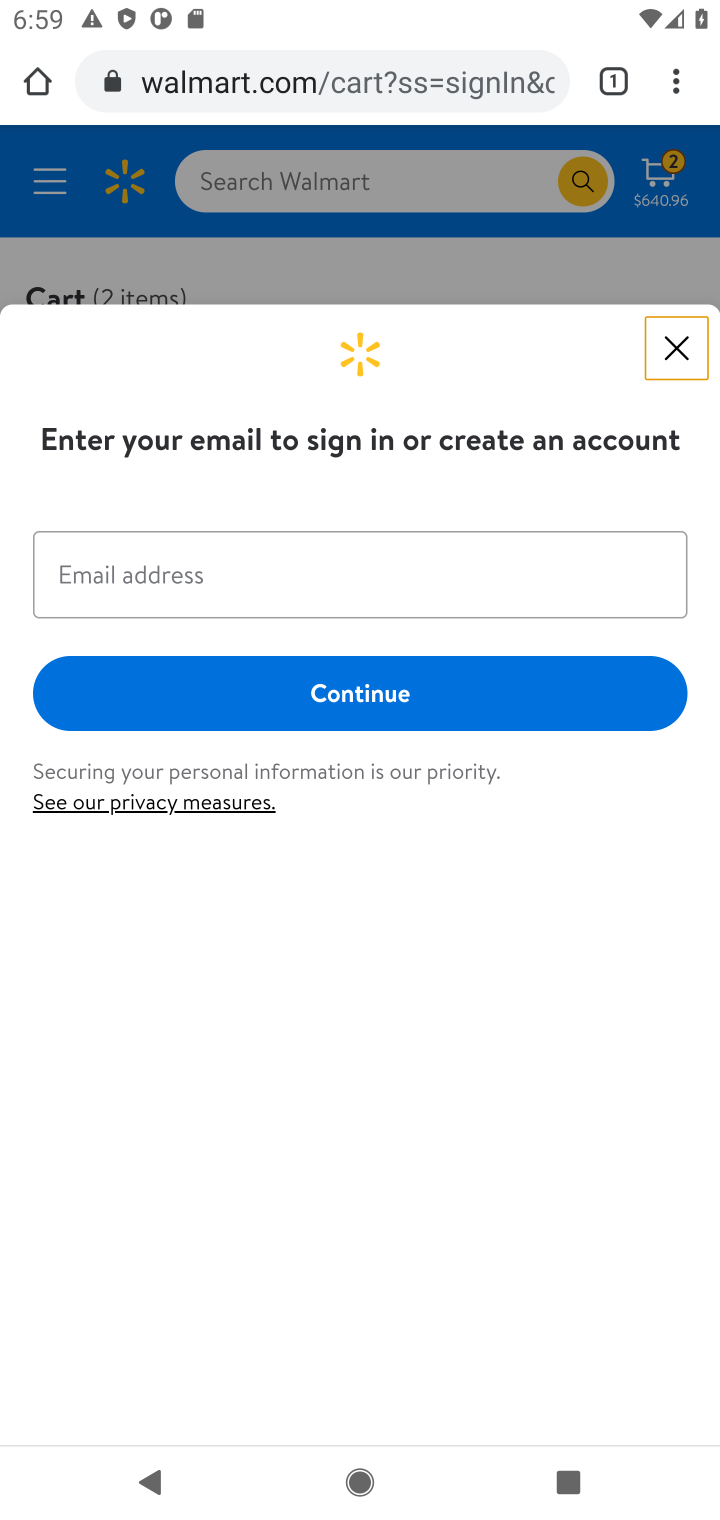
Step 27: task complete